Your task to perform on an android device: visit the assistant section in the google photos Image 0: 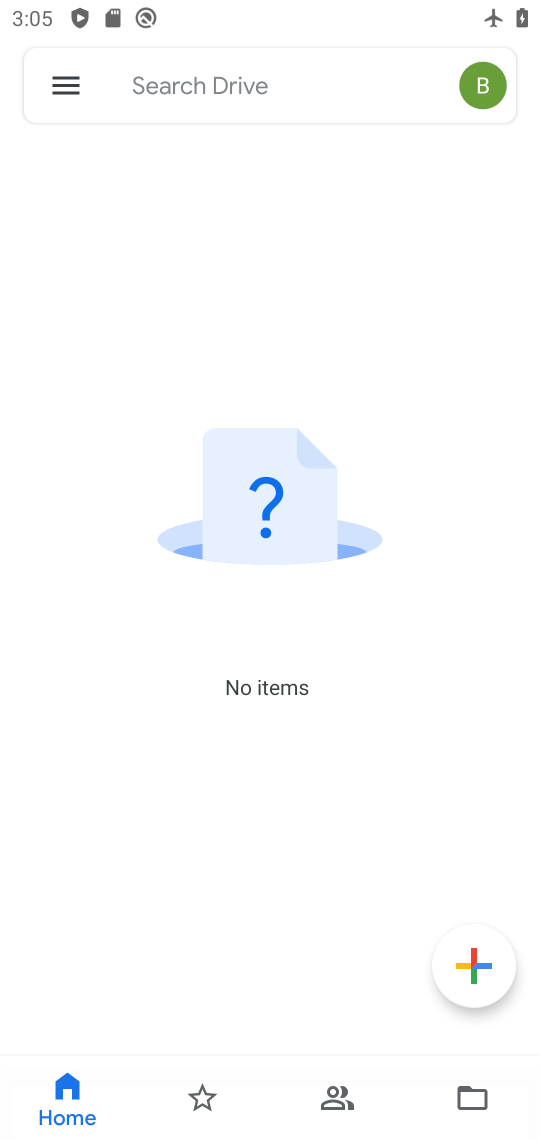
Step 0: press back button
Your task to perform on an android device: visit the assistant section in the google photos Image 1: 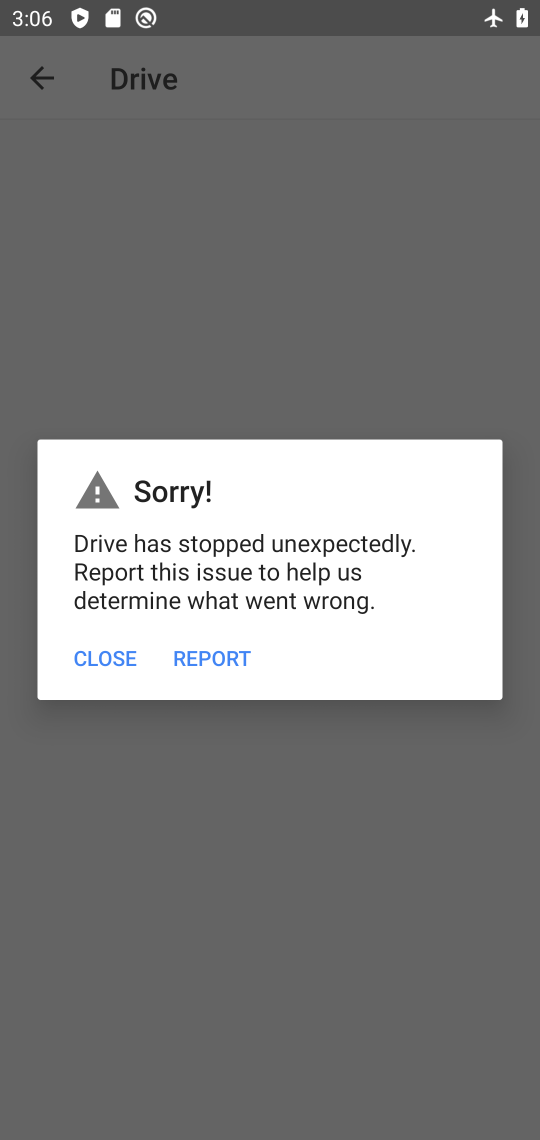
Step 1: press back button
Your task to perform on an android device: visit the assistant section in the google photos Image 2: 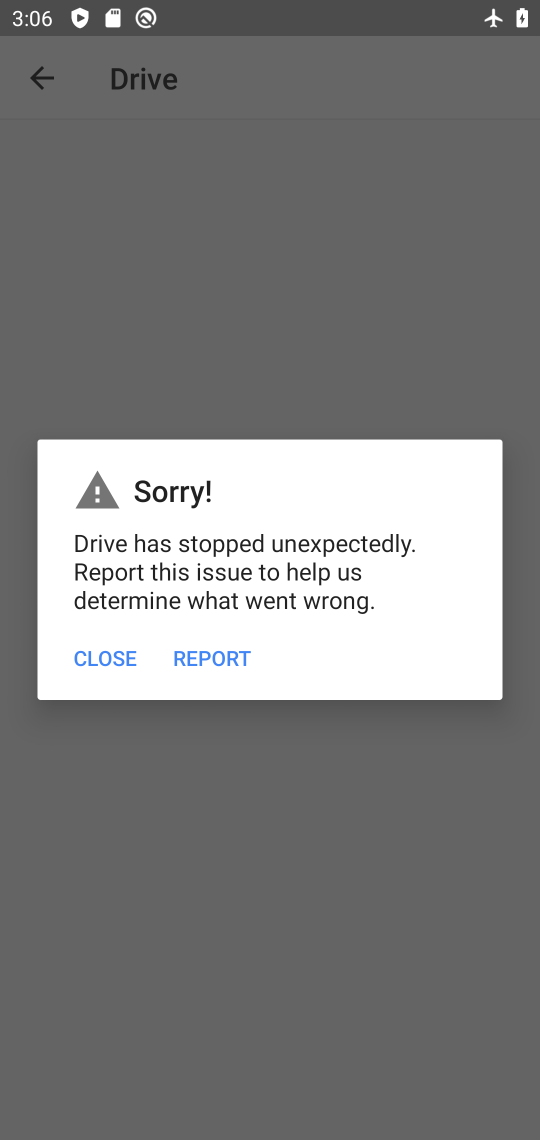
Step 2: press home button
Your task to perform on an android device: visit the assistant section in the google photos Image 3: 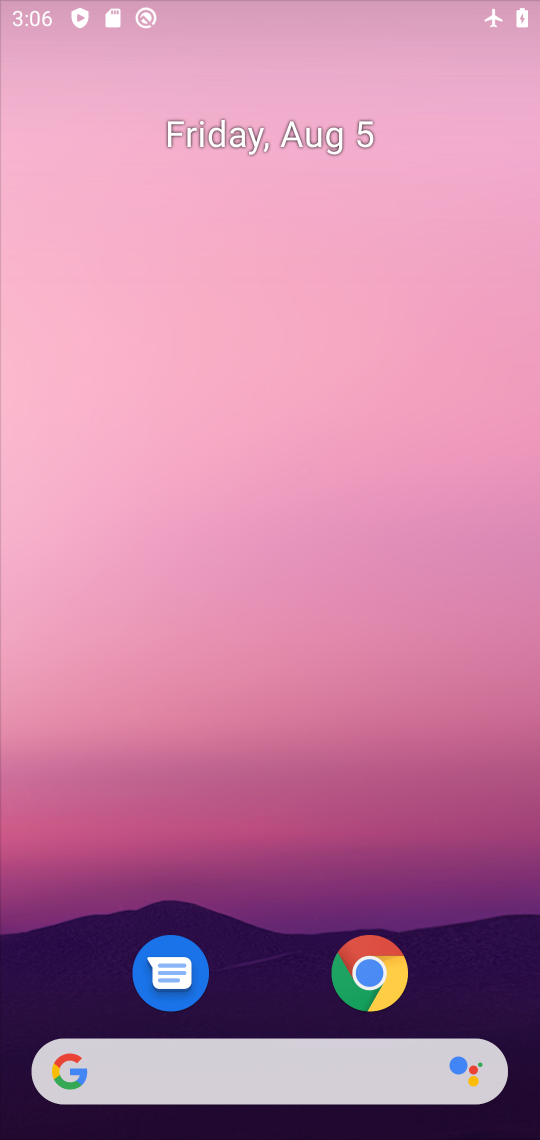
Step 3: drag from (252, 1067) to (153, 224)
Your task to perform on an android device: visit the assistant section in the google photos Image 4: 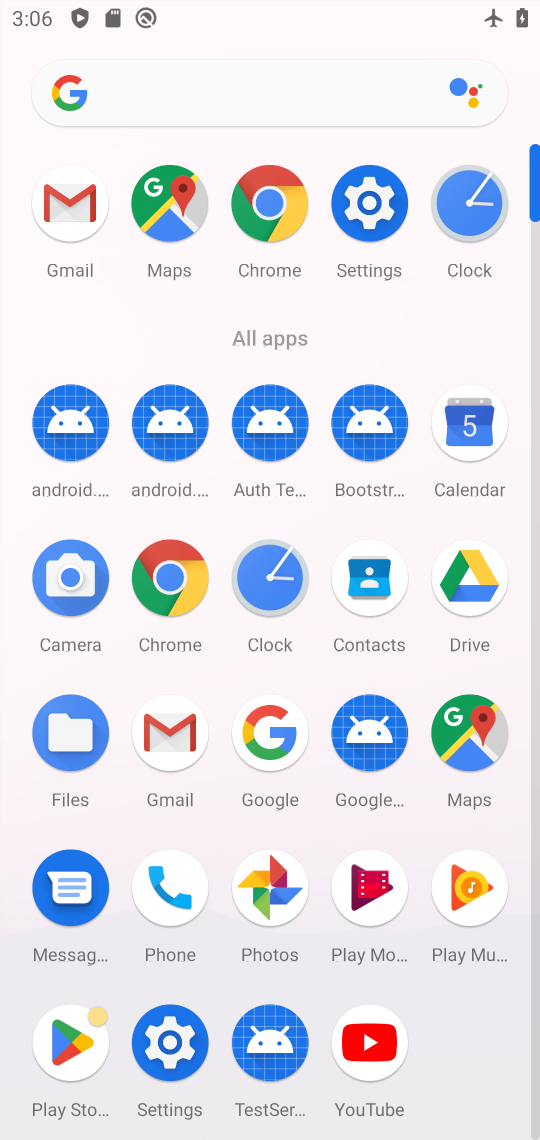
Step 4: click (252, 902)
Your task to perform on an android device: visit the assistant section in the google photos Image 5: 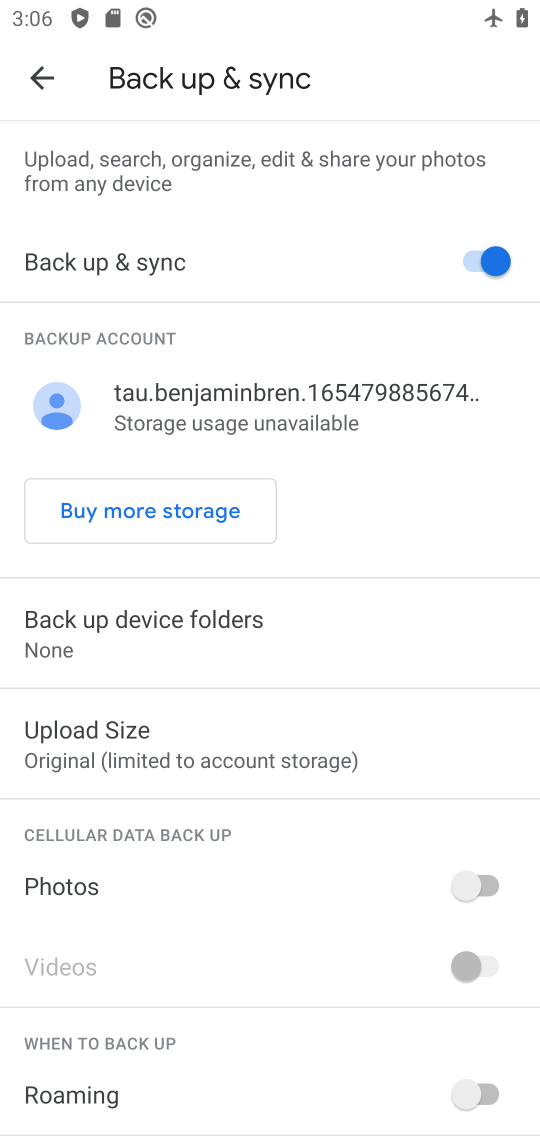
Step 5: click (43, 74)
Your task to perform on an android device: visit the assistant section in the google photos Image 6: 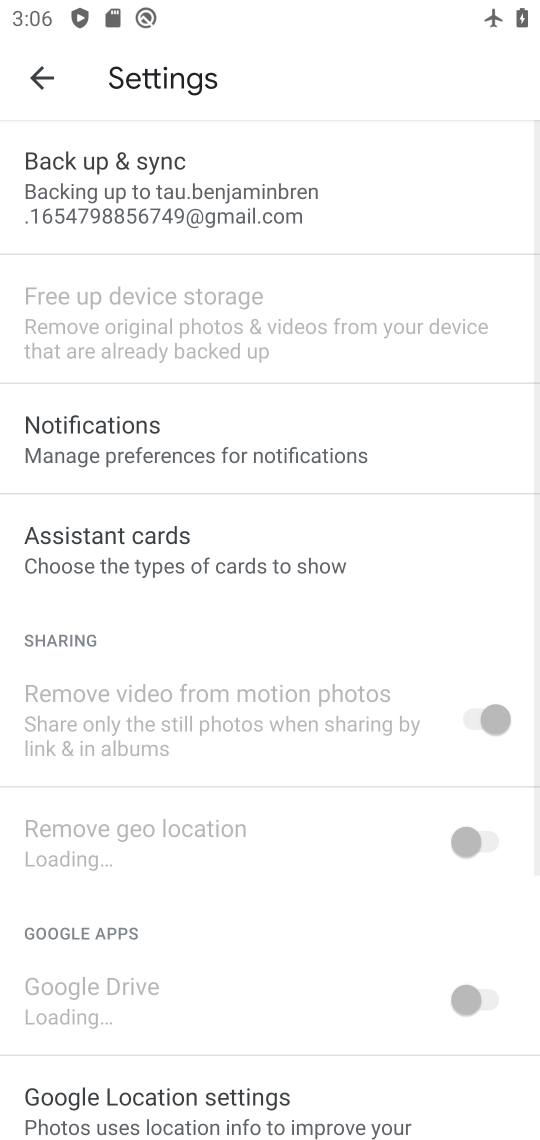
Step 6: click (76, 90)
Your task to perform on an android device: visit the assistant section in the google photos Image 7: 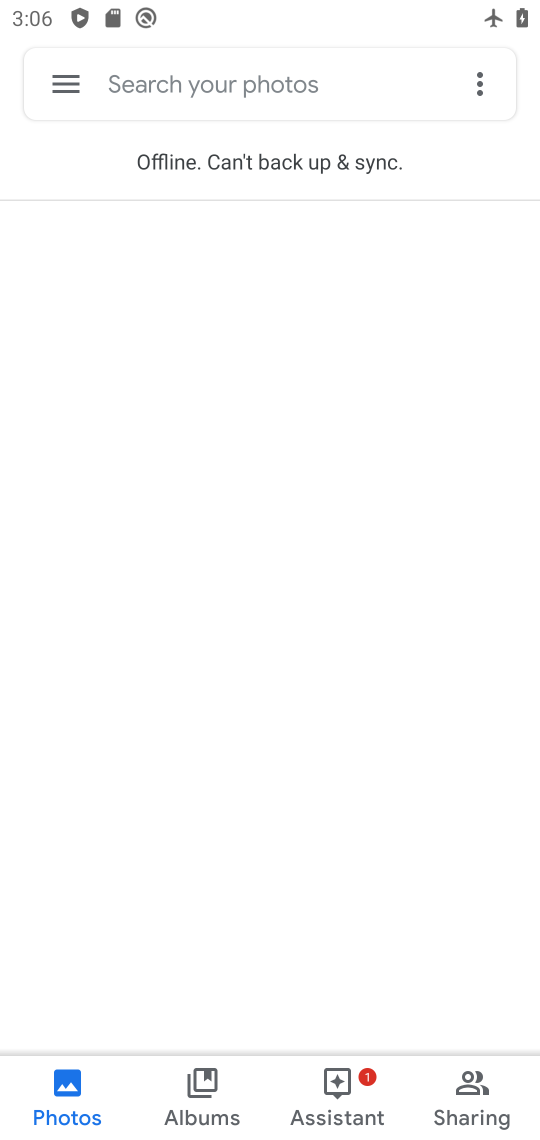
Step 7: click (339, 1116)
Your task to perform on an android device: visit the assistant section in the google photos Image 8: 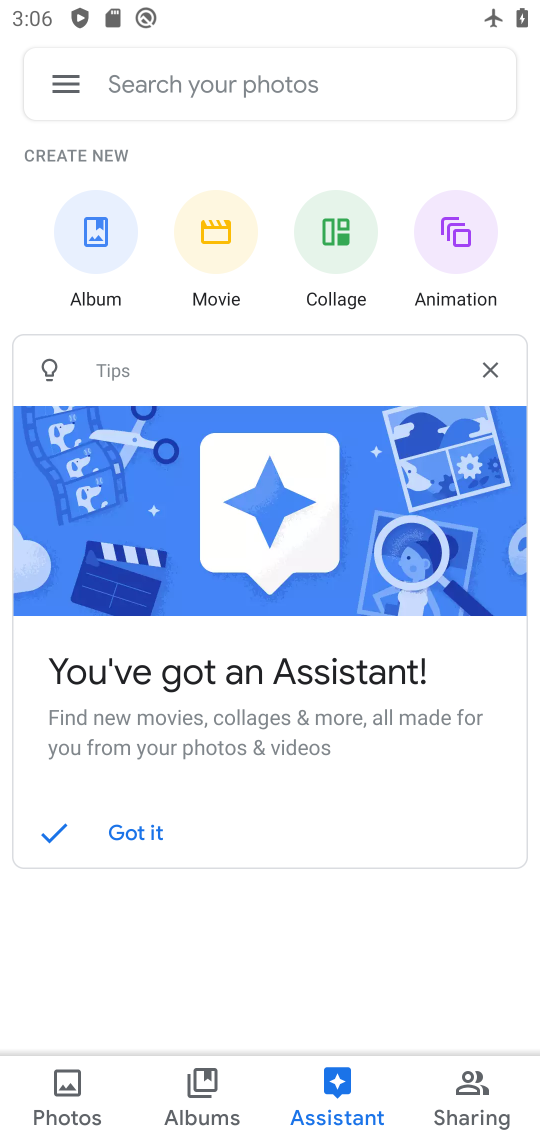
Step 8: task complete